Your task to perform on an android device: Open Youtube and go to the subscriptions tab Image 0: 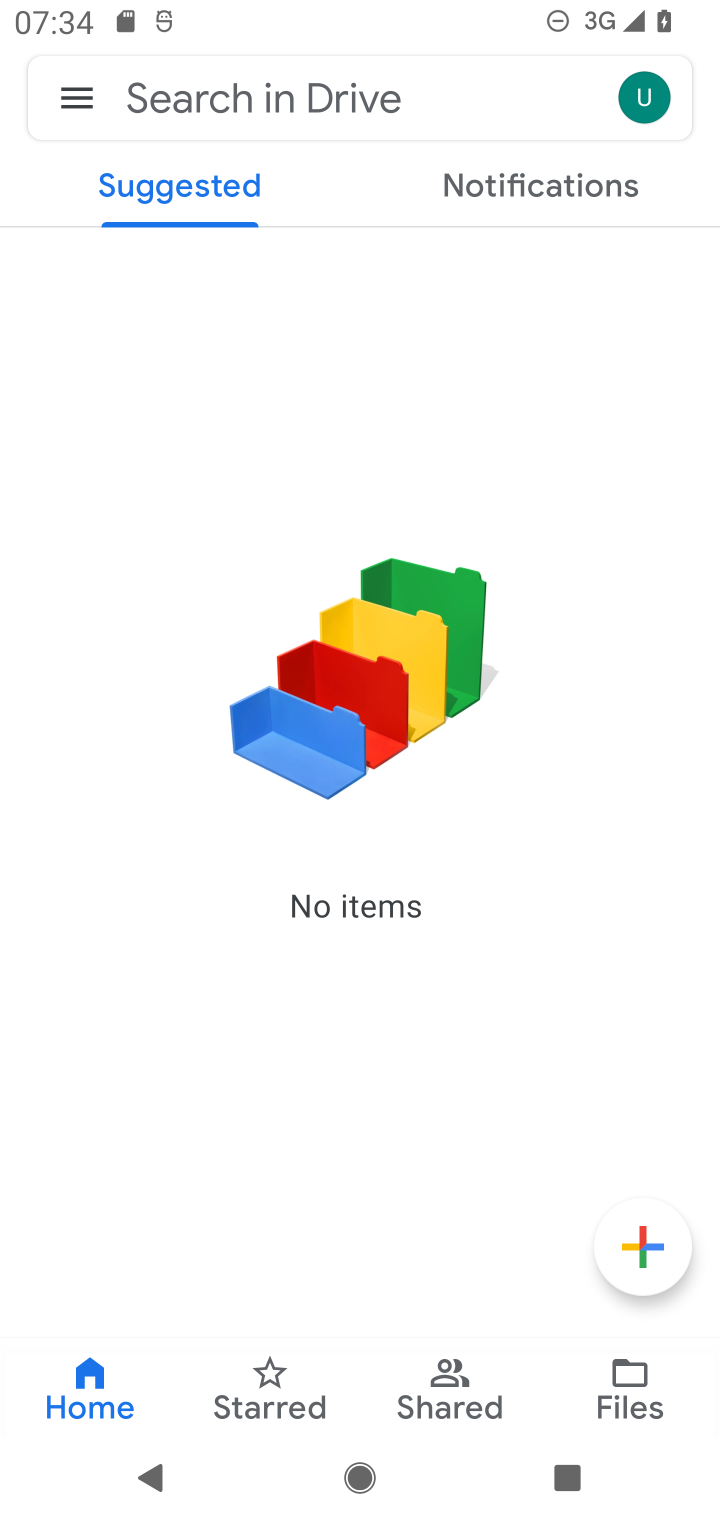
Step 0: press home button
Your task to perform on an android device: Open Youtube and go to the subscriptions tab Image 1: 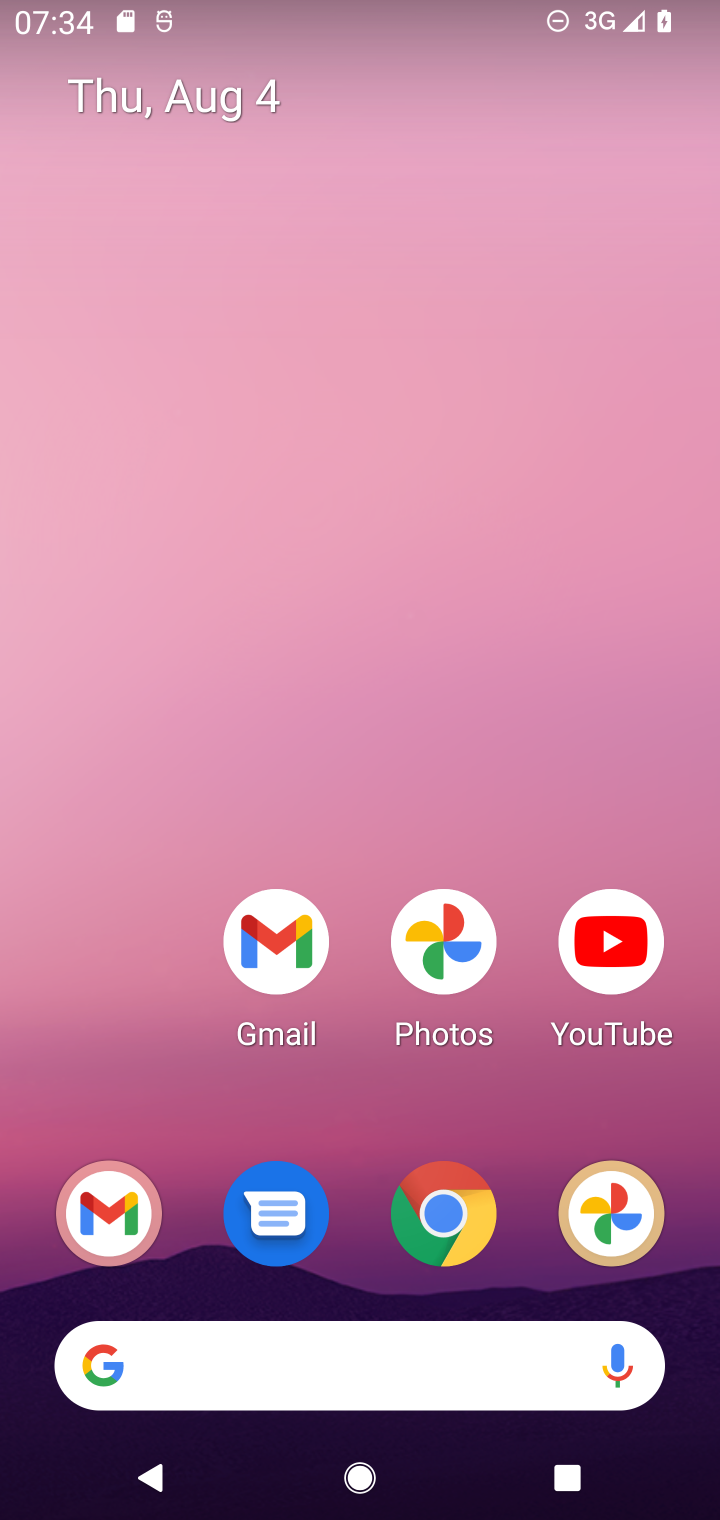
Step 1: drag from (176, 1149) to (200, 477)
Your task to perform on an android device: Open Youtube and go to the subscriptions tab Image 2: 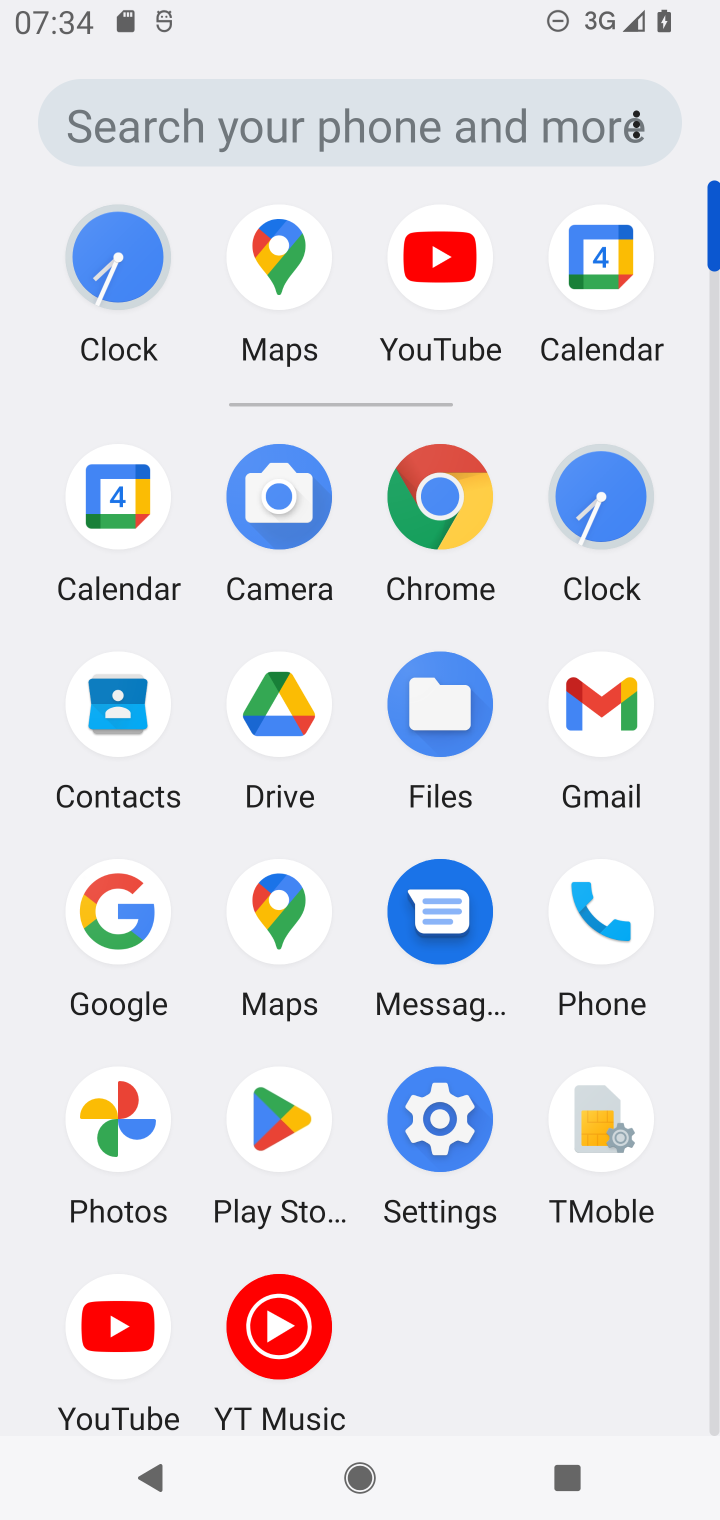
Step 2: click (450, 268)
Your task to perform on an android device: Open Youtube and go to the subscriptions tab Image 3: 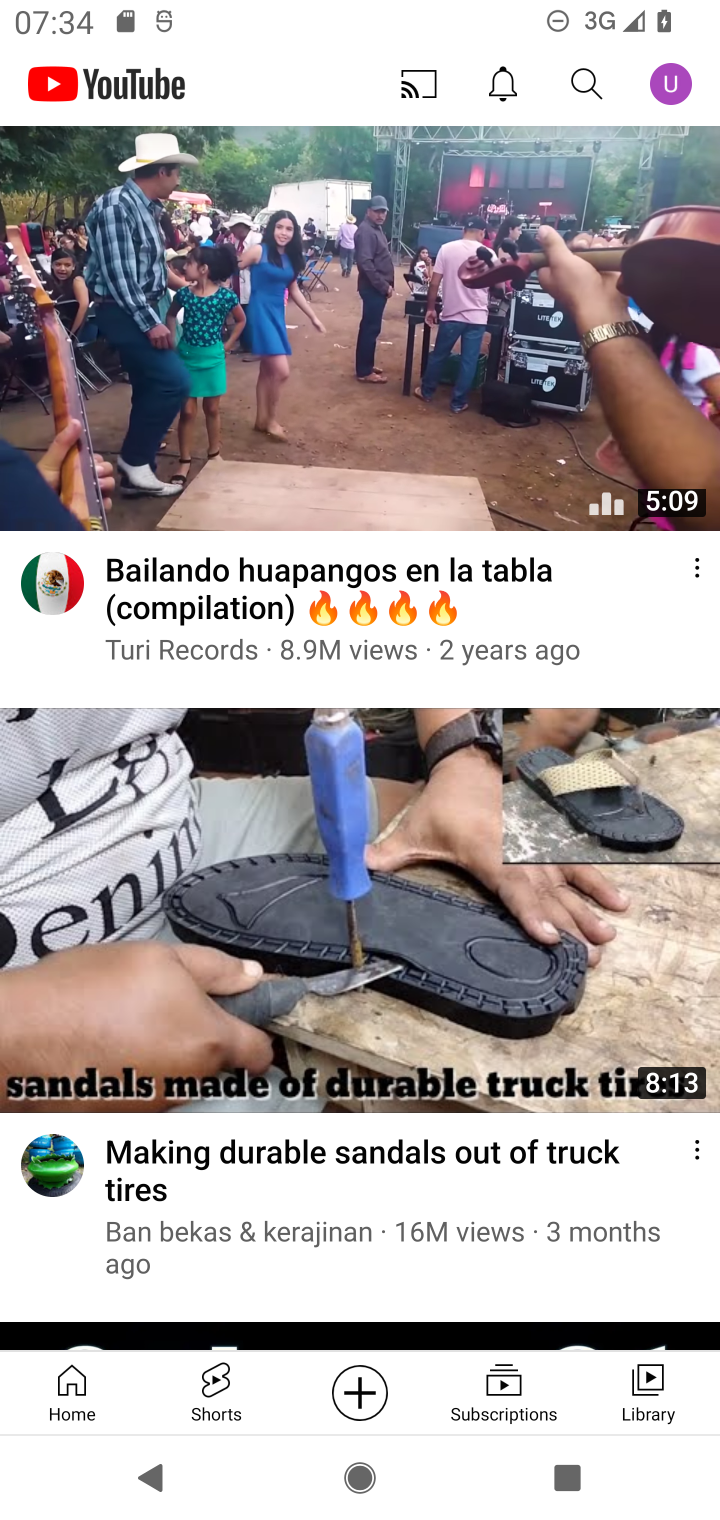
Step 3: click (493, 1381)
Your task to perform on an android device: Open Youtube and go to the subscriptions tab Image 4: 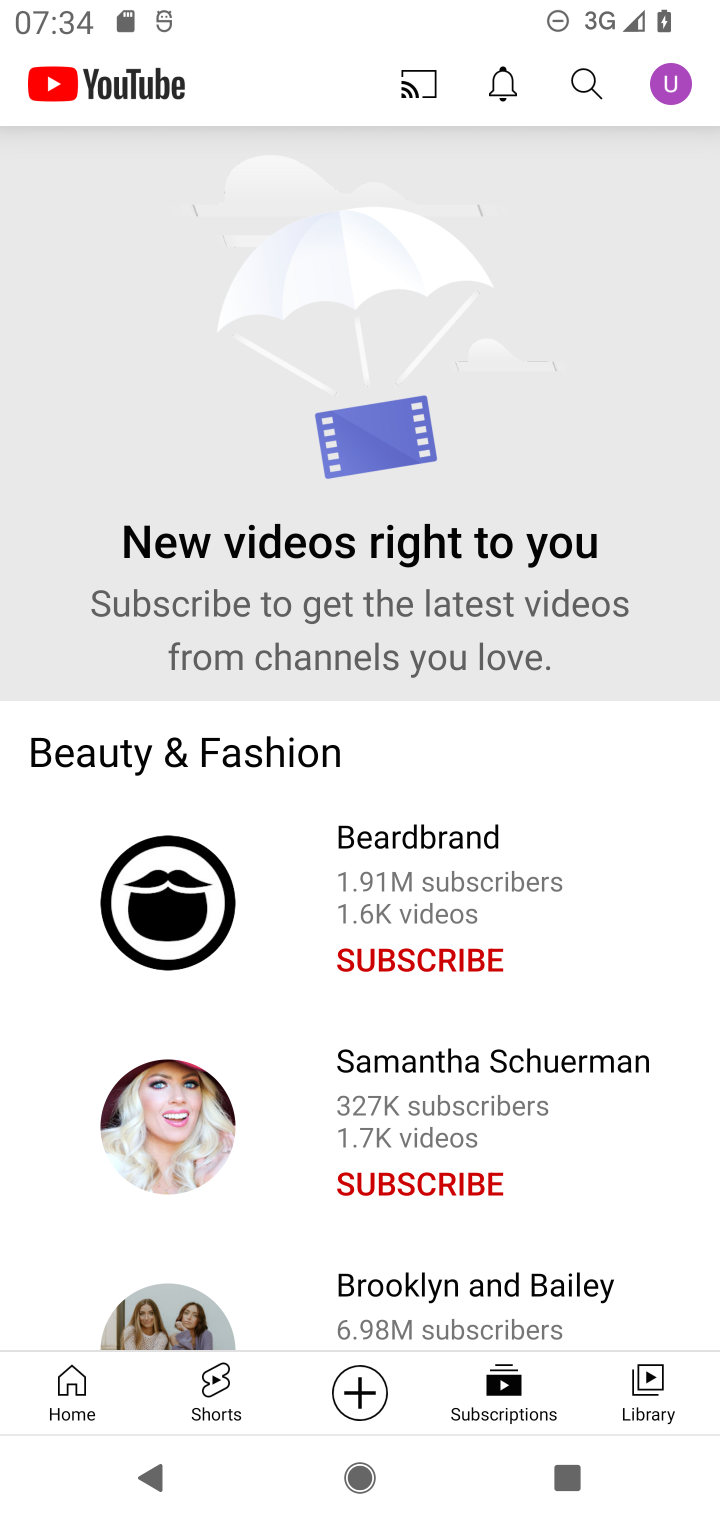
Step 4: task complete